Your task to perform on an android device: Search for "usb-b" on walmart.com, select the first entry, add it to the cart, then select checkout. Image 0: 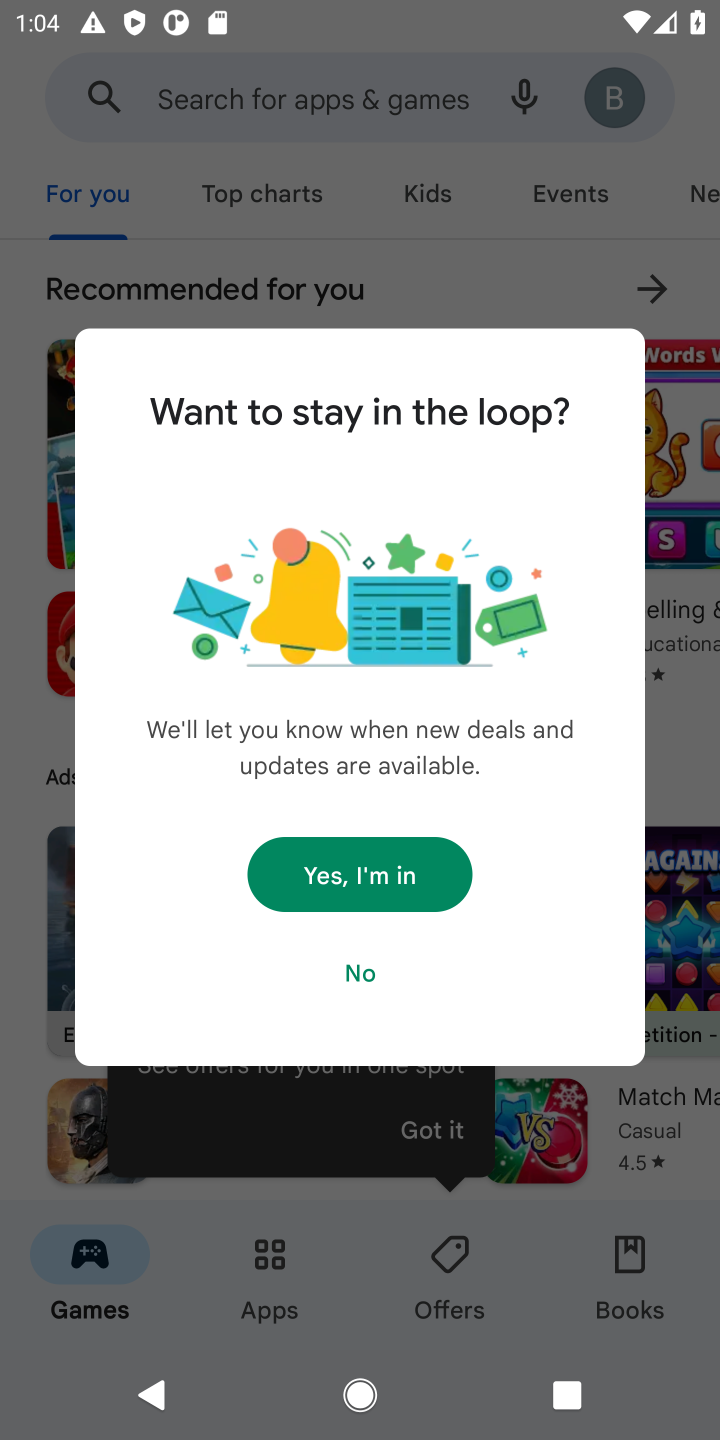
Step 0: click (357, 971)
Your task to perform on an android device: Search for "usb-b" on walmart.com, select the first entry, add it to the cart, then select checkout. Image 1: 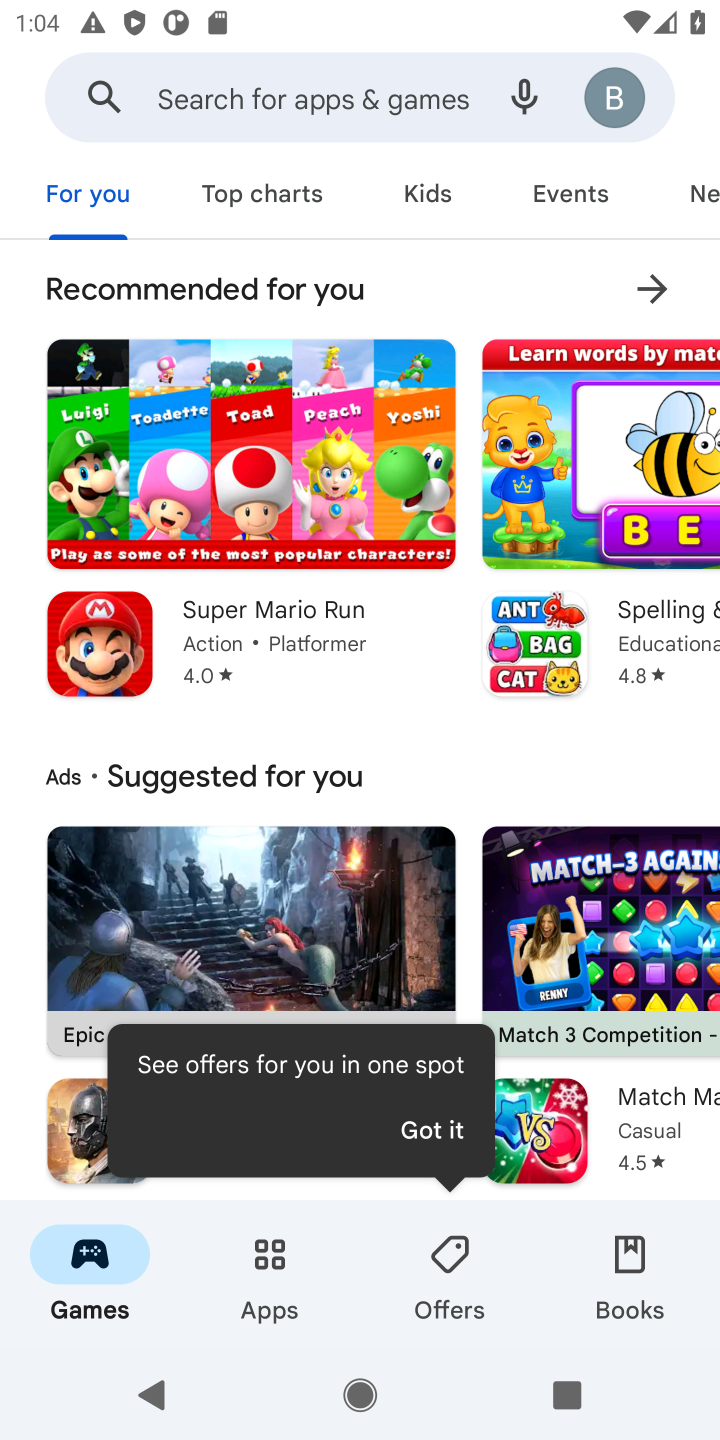
Step 1: click (354, 96)
Your task to perform on an android device: Search for "usb-b" on walmart.com, select the first entry, add it to the cart, then select checkout. Image 2: 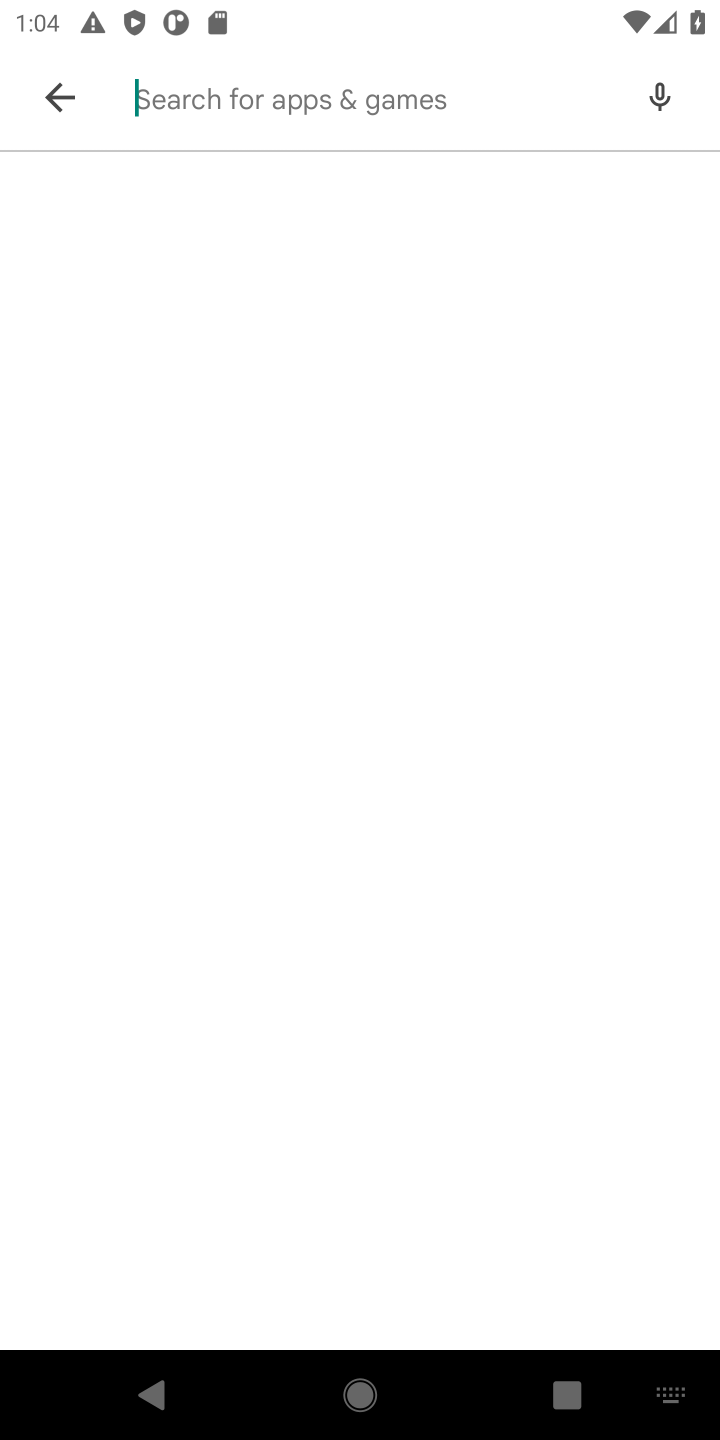
Step 2: type "walmart.com"
Your task to perform on an android device: Search for "usb-b" on walmart.com, select the first entry, add it to the cart, then select checkout. Image 3: 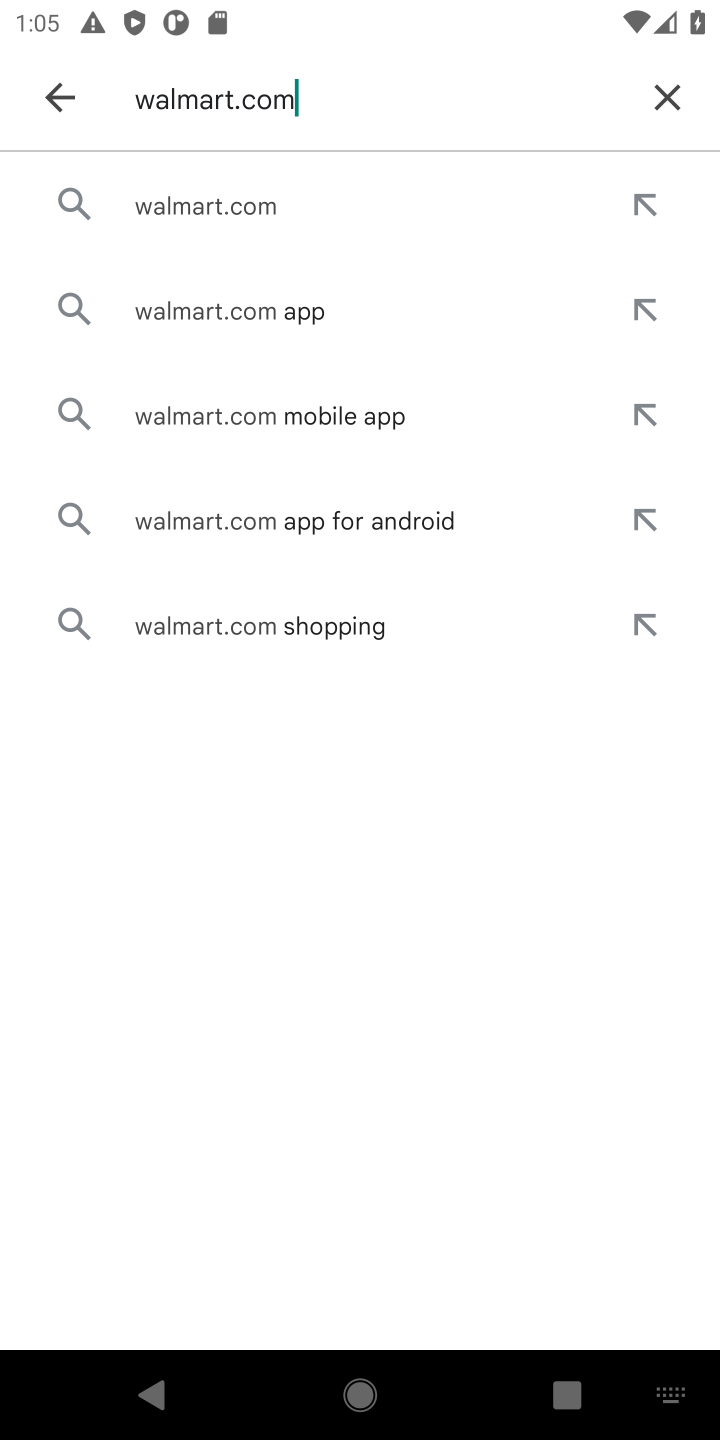
Step 3: click (350, 226)
Your task to perform on an android device: Search for "usb-b" on walmart.com, select the first entry, add it to the cart, then select checkout. Image 4: 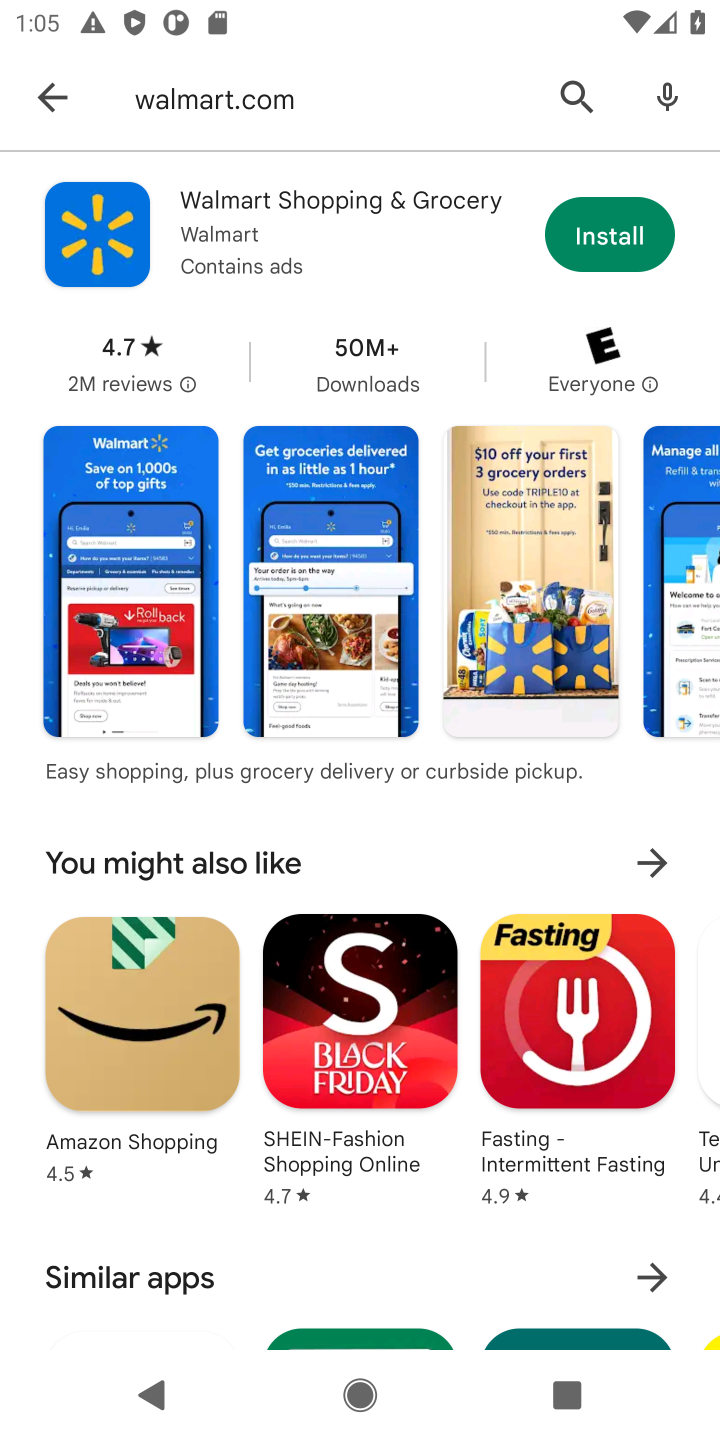
Step 4: press home button
Your task to perform on an android device: Search for "usb-b" on walmart.com, select the first entry, add it to the cart, then select checkout. Image 5: 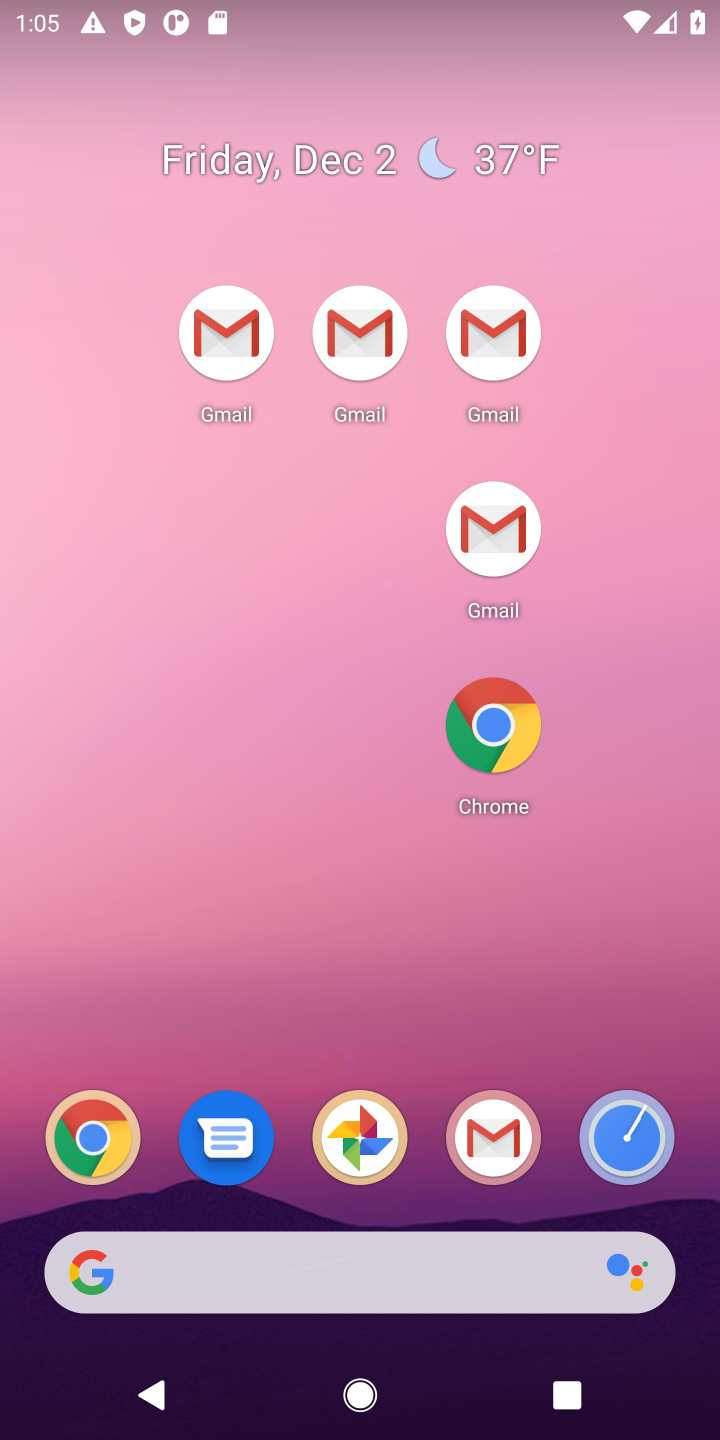
Step 5: click (479, 762)
Your task to perform on an android device: Search for "usb-b" on walmart.com, select the first entry, add it to the cart, then select checkout. Image 6: 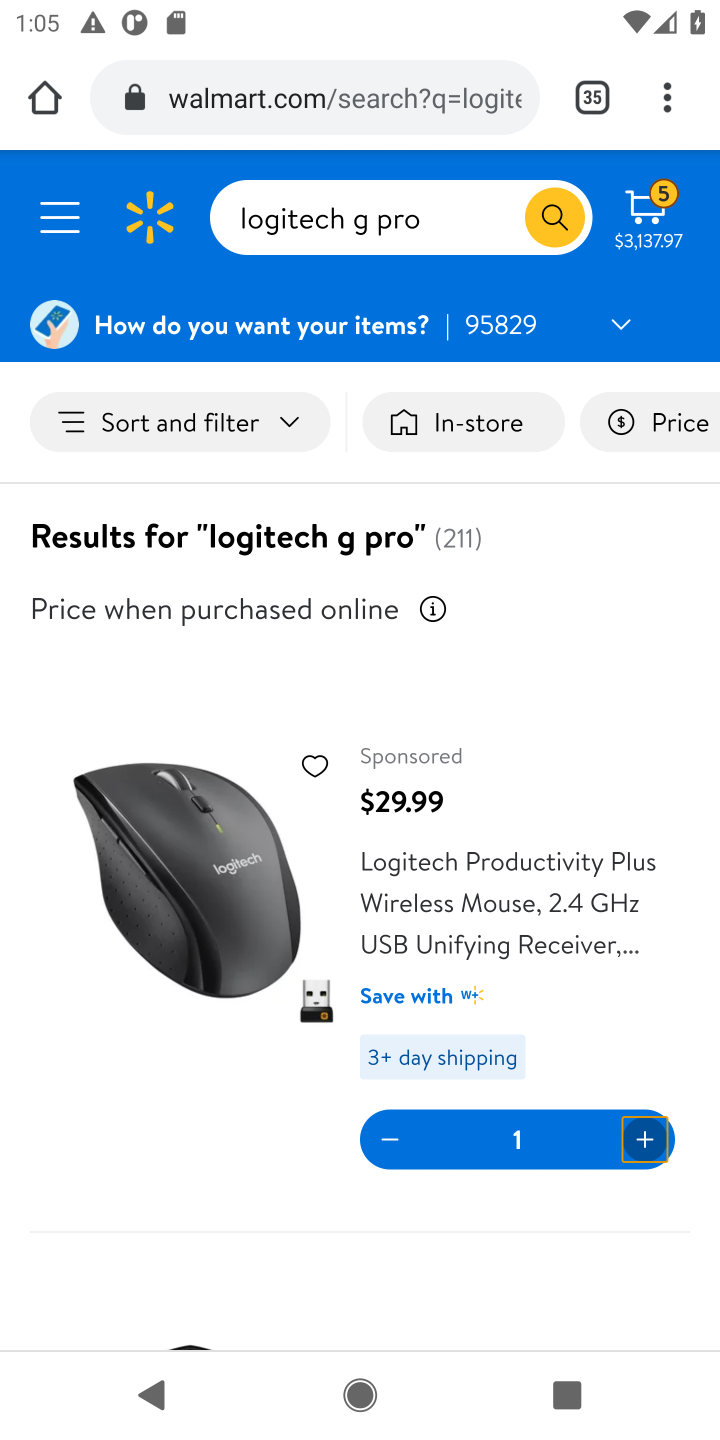
Step 6: click (431, 233)
Your task to perform on an android device: Search for "usb-b" on walmart.com, select the first entry, add it to the cart, then select checkout. Image 7: 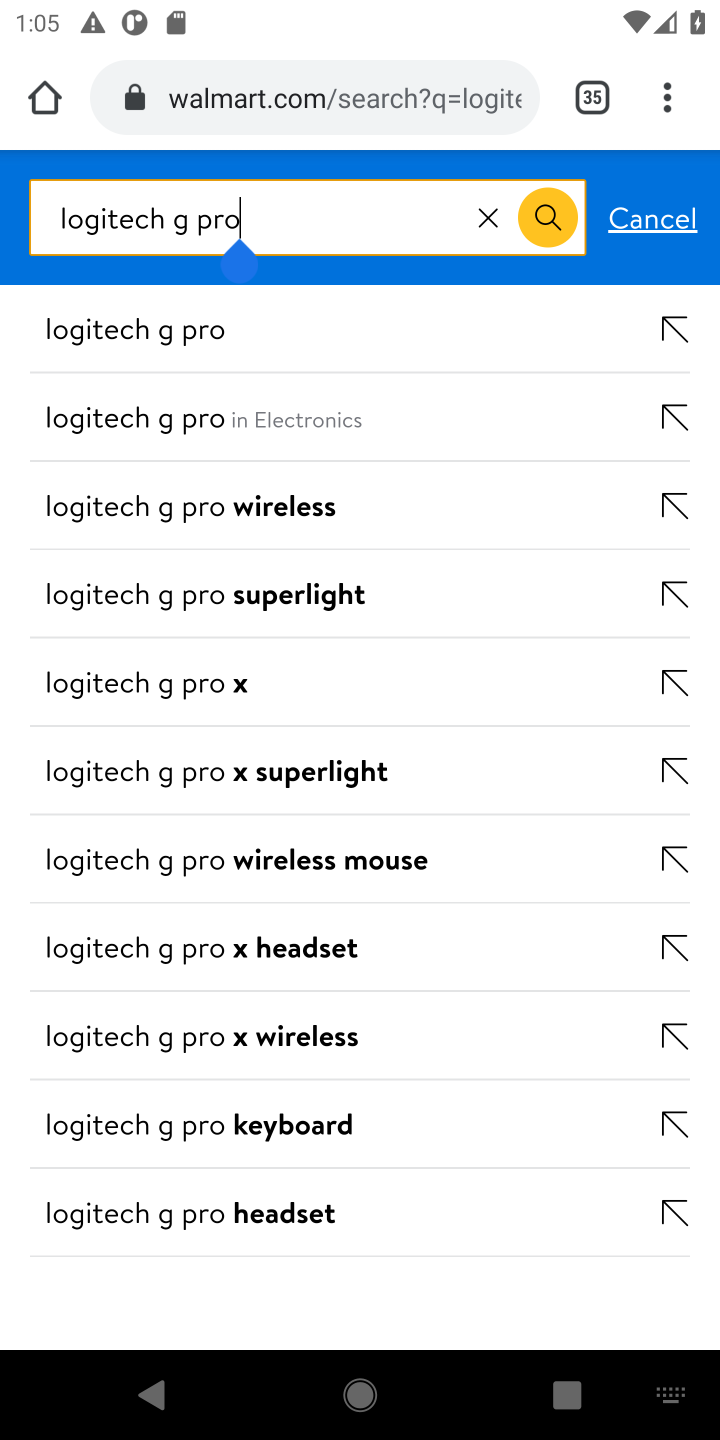
Step 7: click (482, 230)
Your task to perform on an android device: Search for "usb-b" on walmart.com, select the first entry, add it to the cart, then select checkout. Image 8: 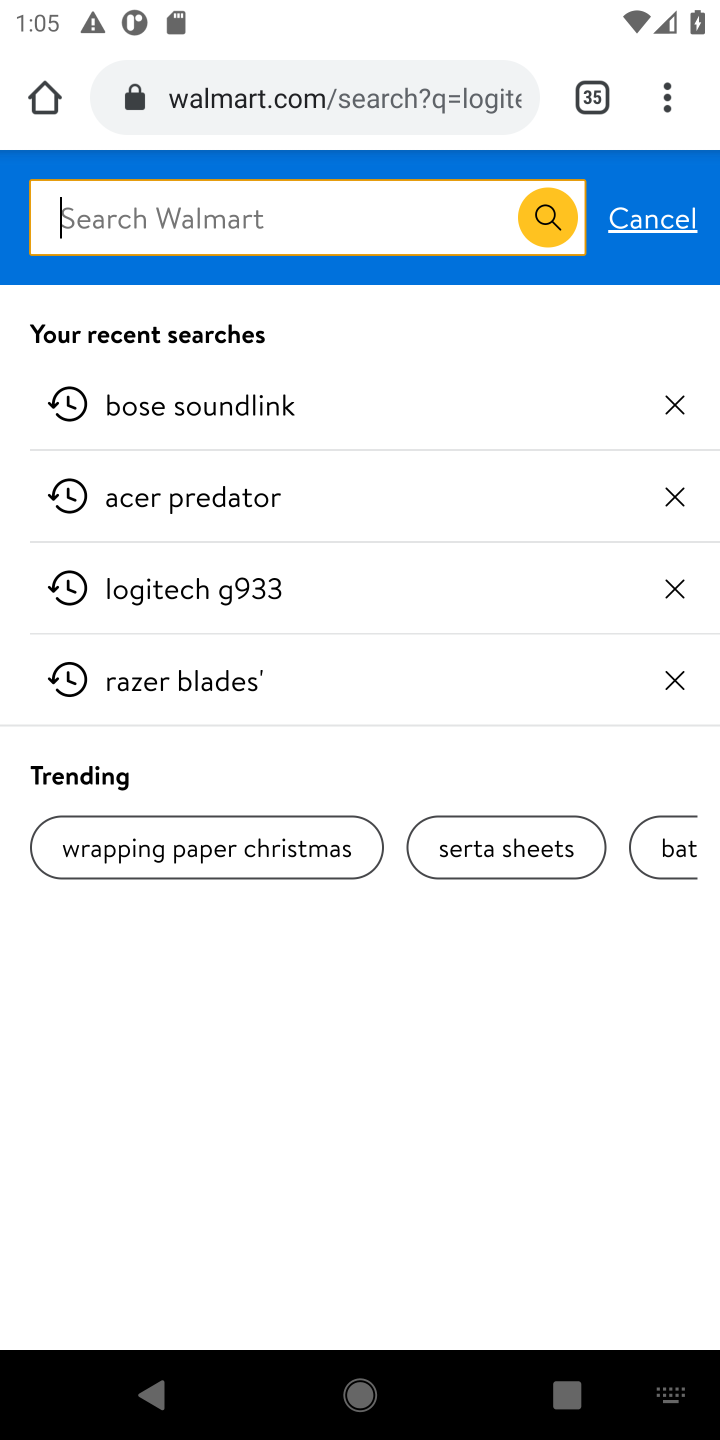
Step 8: type "usb-b"
Your task to perform on an android device: Search for "usb-b" on walmart.com, select the first entry, add it to the cart, then select checkout. Image 9: 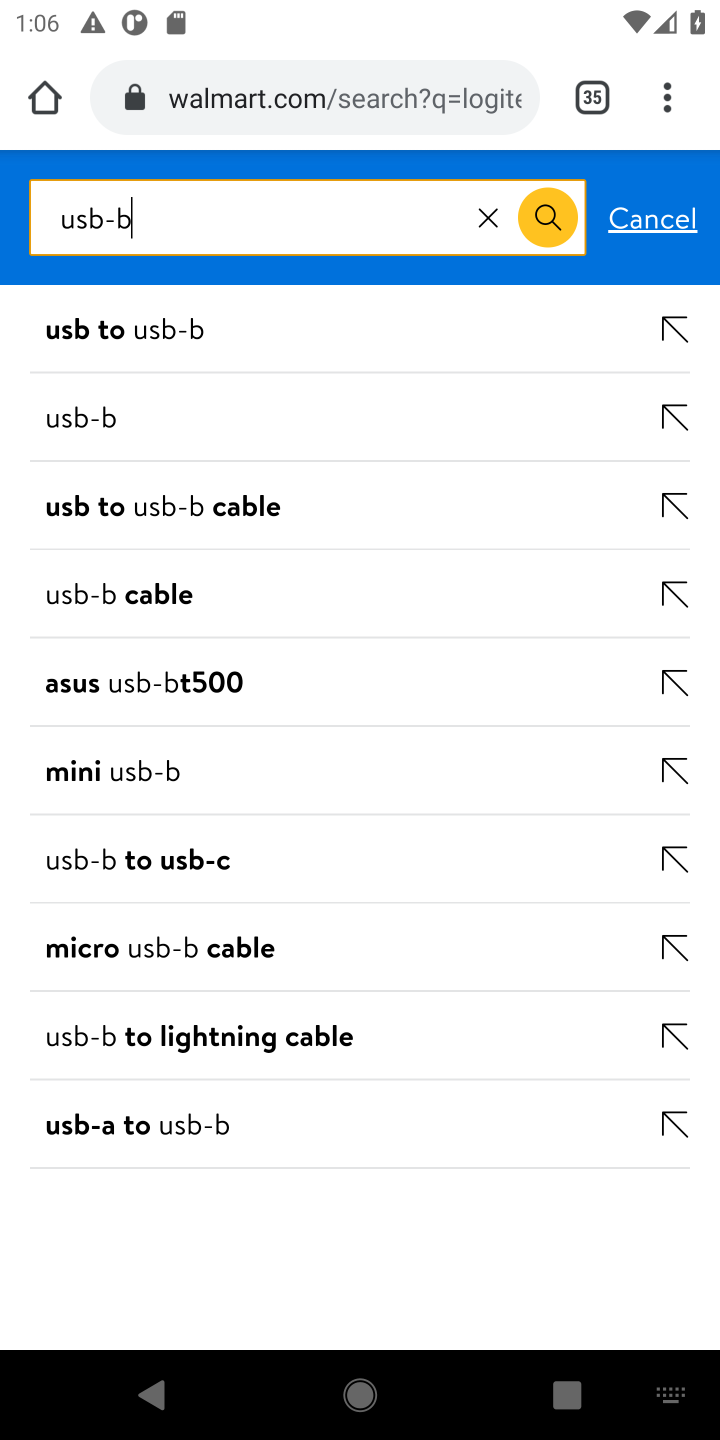
Step 9: click (389, 434)
Your task to perform on an android device: Search for "usb-b" on walmart.com, select the first entry, add it to the cart, then select checkout. Image 10: 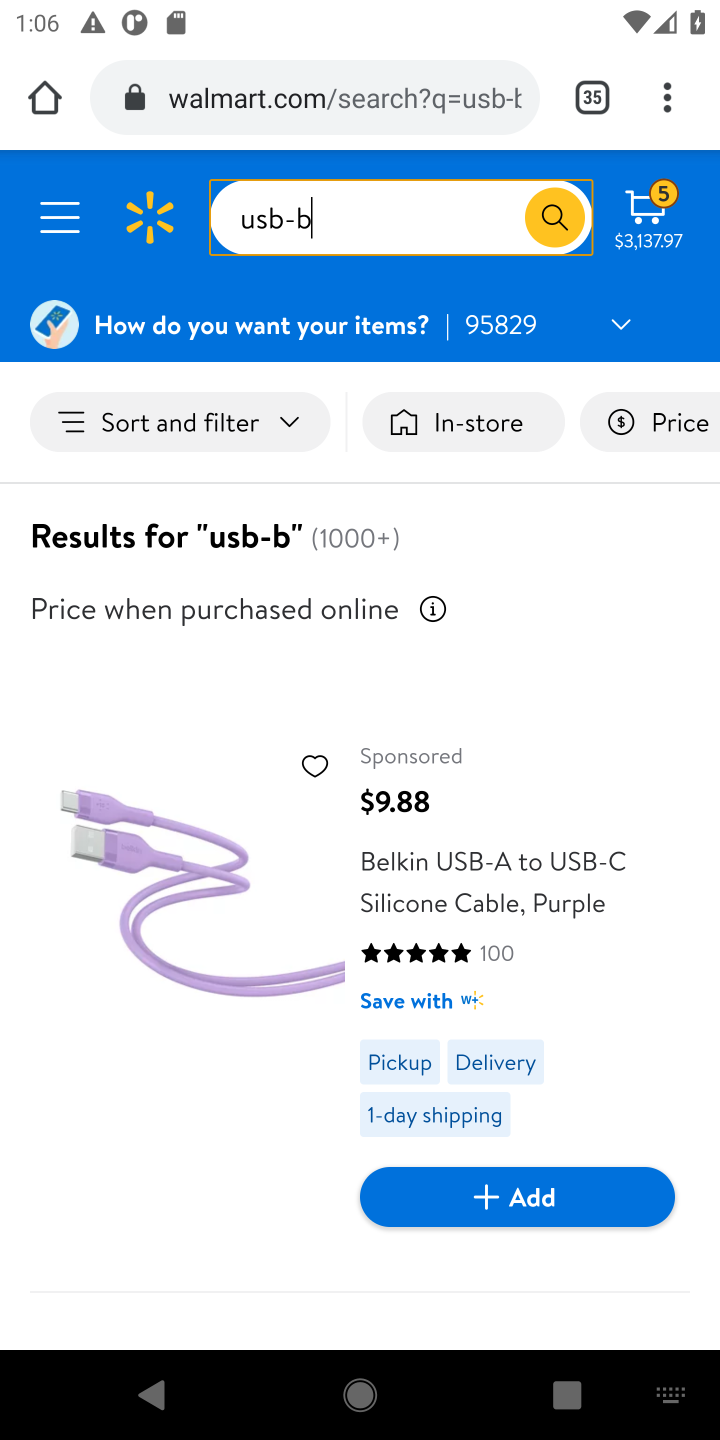
Step 10: click (538, 1208)
Your task to perform on an android device: Search for "usb-b" on walmart.com, select the first entry, add it to the cart, then select checkout. Image 11: 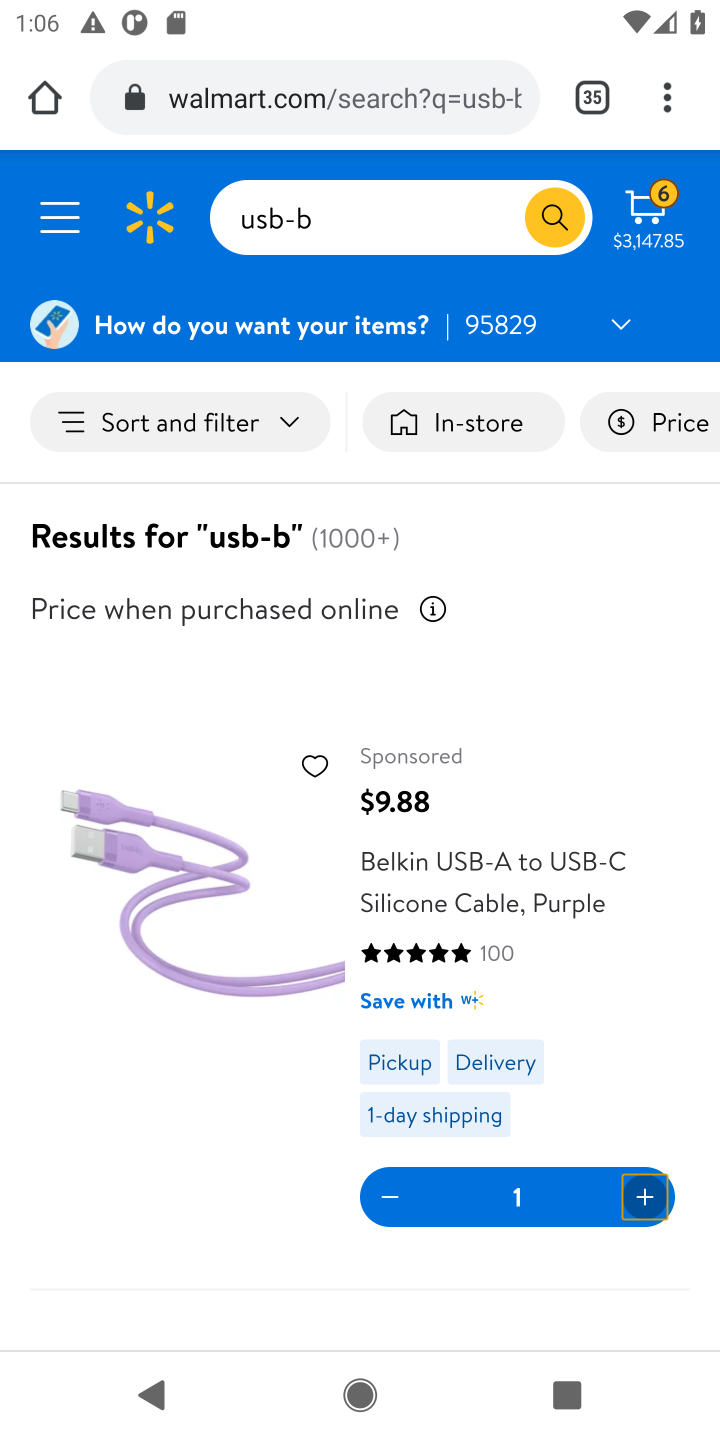
Step 11: click (654, 220)
Your task to perform on an android device: Search for "usb-b" on walmart.com, select the first entry, add it to the cart, then select checkout. Image 12: 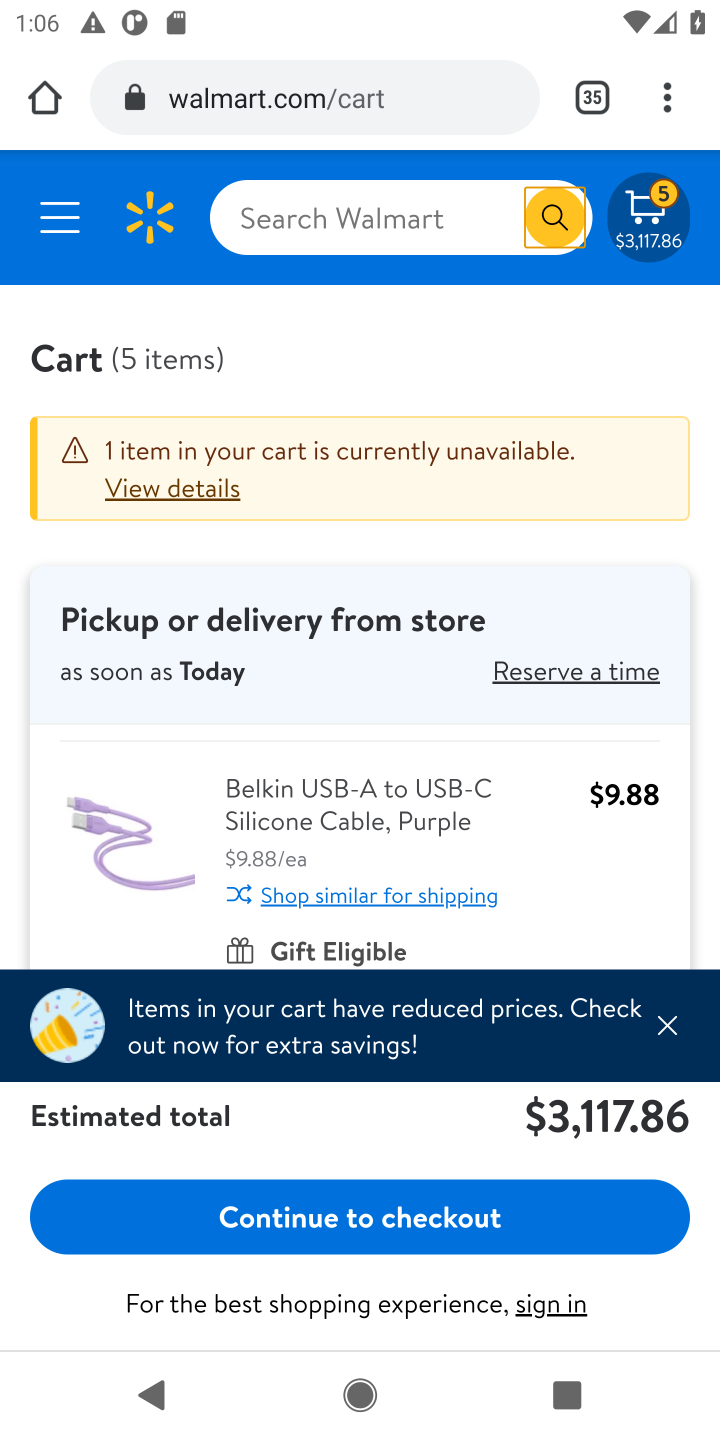
Step 12: click (504, 1226)
Your task to perform on an android device: Search for "usb-b" on walmart.com, select the first entry, add it to the cart, then select checkout. Image 13: 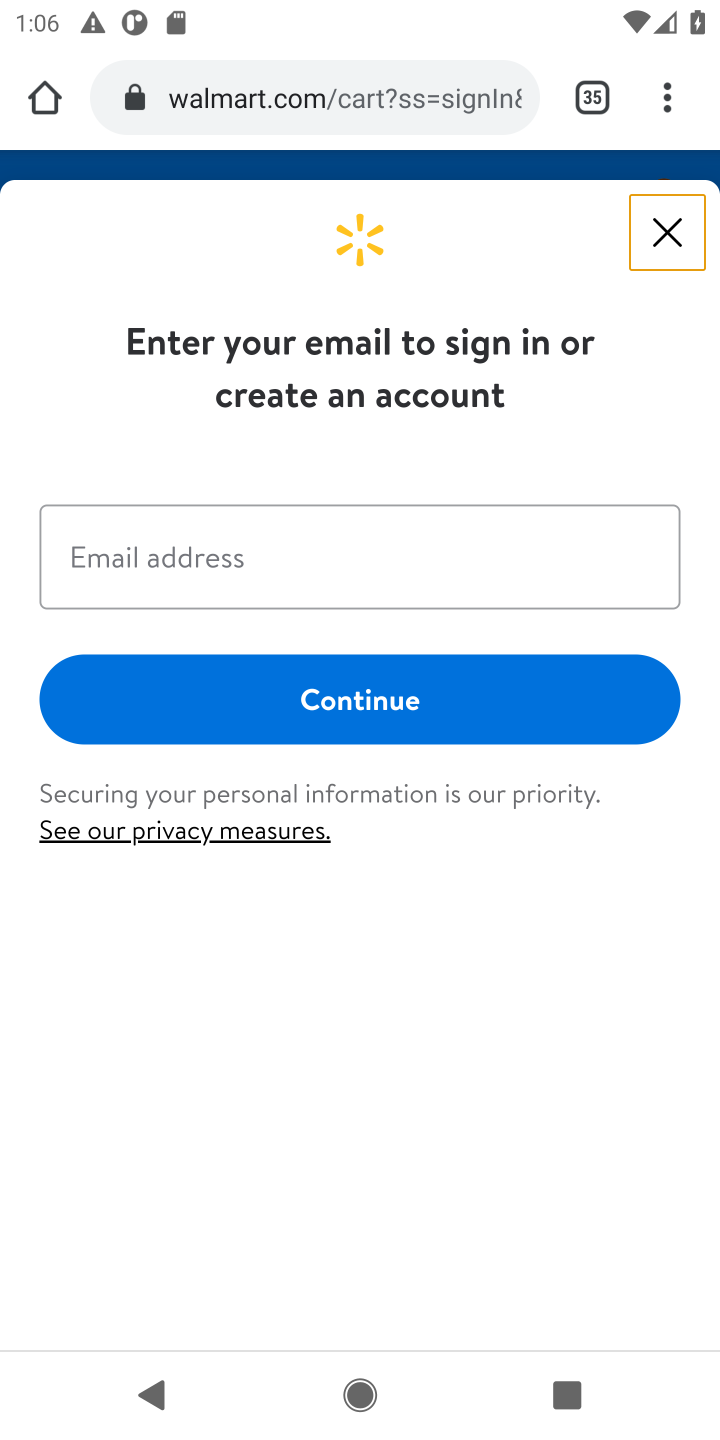
Step 13: task complete